Your task to perform on an android device: change the clock display to analog Image 0: 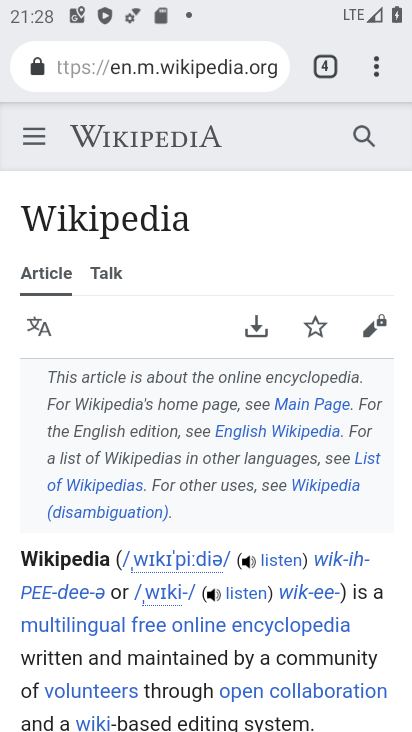
Step 0: press home button
Your task to perform on an android device: change the clock display to analog Image 1: 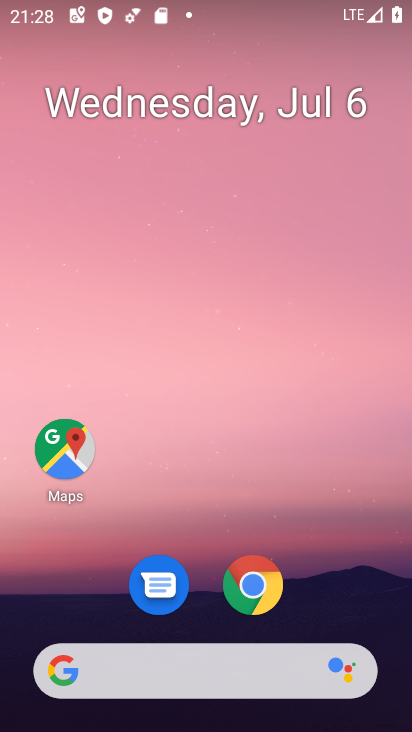
Step 1: drag from (232, 519) to (293, 0)
Your task to perform on an android device: change the clock display to analog Image 2: 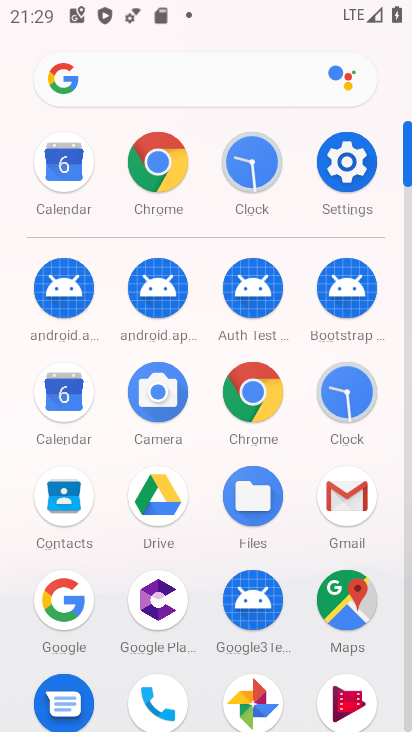
Step 2: click (340, 396)
Your task to perform on an android device: change the clock display to analog Image 3: 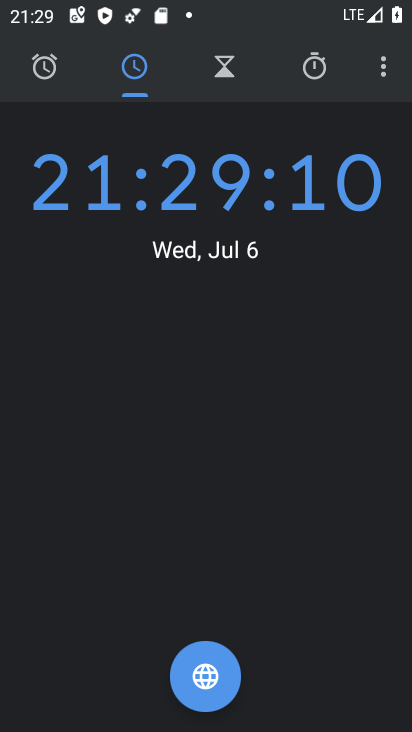
Step 3: click (384, 71)
Your task to perform on an android device: change the clock display to analog Image 4: 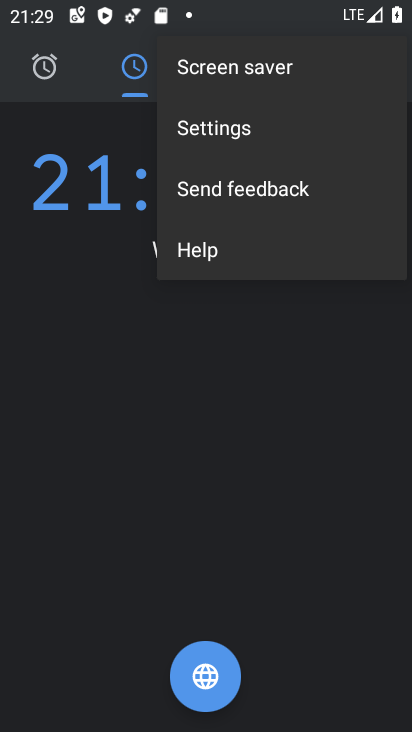
Step 4: click (282, 128)
Your task to perform on an android device: change the clock display to analog Image 5: 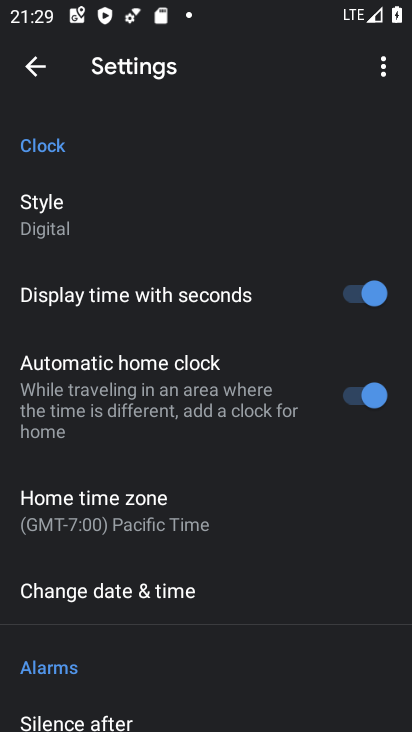
Step 5: drag from (246, 613) to (241, 659)
Your task to perform on an android device: change the clock display to analog Image 6: 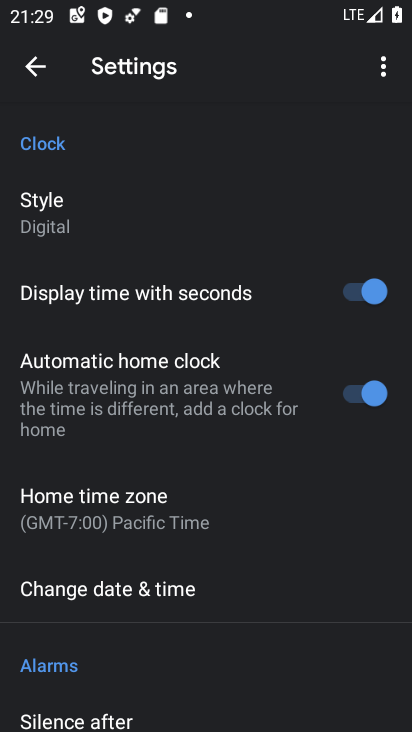
Step 6: click (67, 216)
Your task to perform on an android device: change the clock display to analog Image 7: 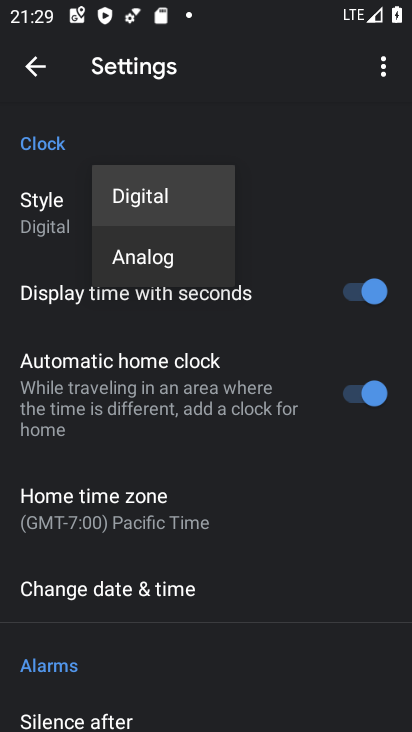
Step 7: click (131, 253)
Your task to perform on an android device: change the clock display to analog Image 8: 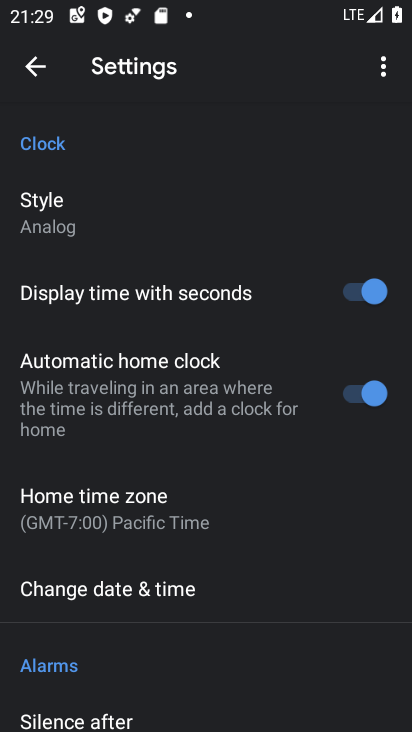
Step 8: click (47, 64)
Your task to perform on an android device: change the clock display to analog Image 9: 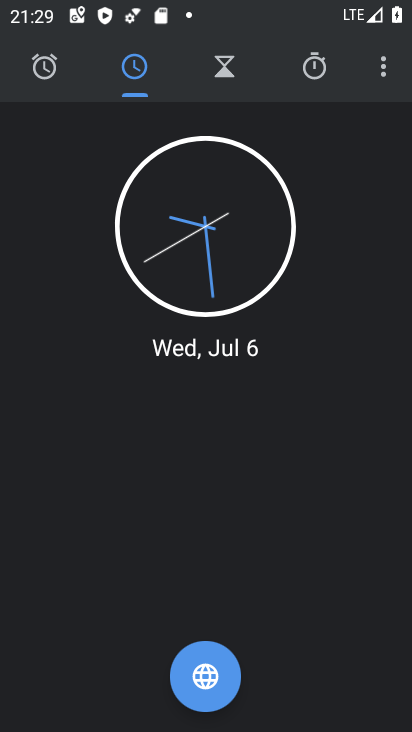
Step 9: task complete